Your task to perform on an android device: Show me productivity apps on the Play Store Image 0: 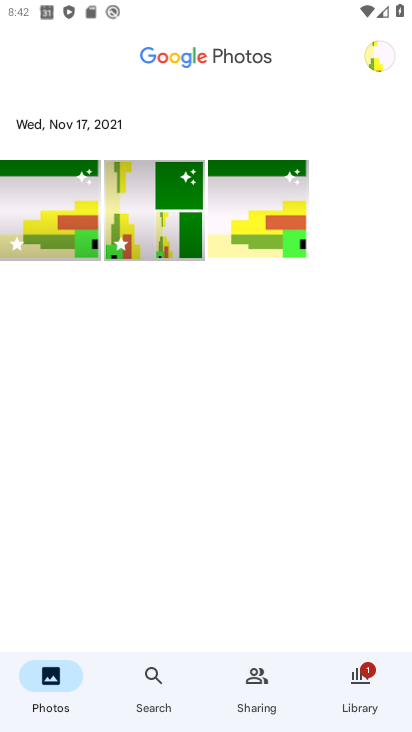
Step 0: drag from (182, 490) to (236, 220)
Your task to perform on an android device: Show me productivity apps on the Play Store Image 1: 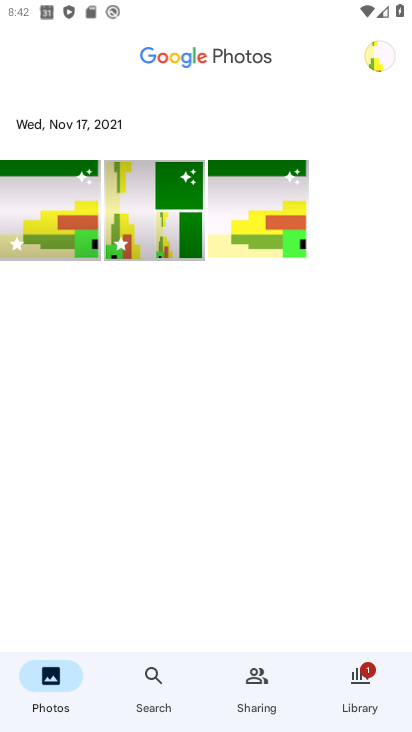
Step 1: press home button
Your task to perform on an android device: Show me productivity apps on the Play Store Image 2: 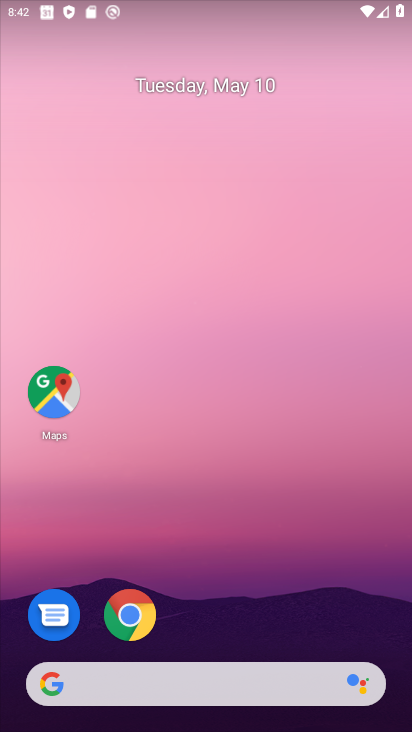
Step 2: drag from (196, 635) to (222, 165)
Your task to perform on an android device: Show me productivity apps on the Play Store Image 3: 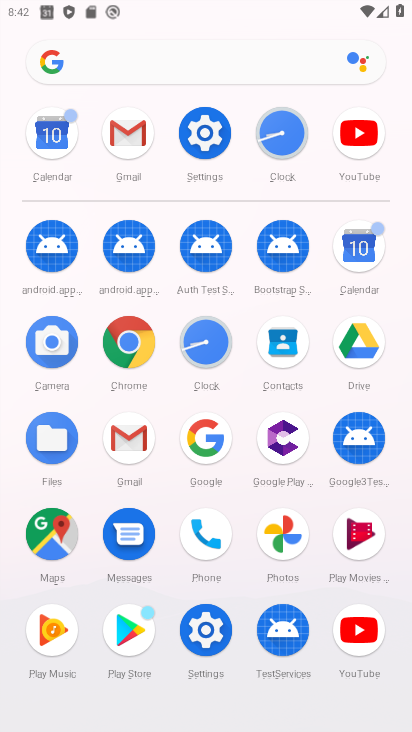
Step 3: click (127, 619)
Your task to perform on an android device: Show me productivity apps on the Play Store Image 4: 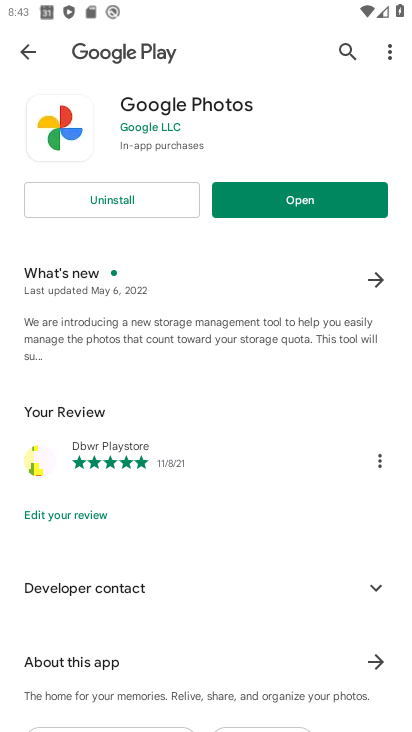
Step 4: click (21, 63)
Your task to perform on an android device: Show me productivity apps on the Play Store Image 5: 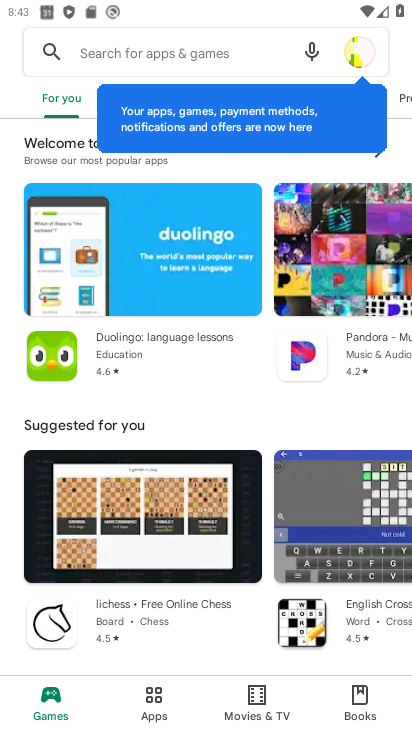
Step 5: click (346, 50)
Your task to perform on an android device: Show me productivity apps on the Play Store Image 6: 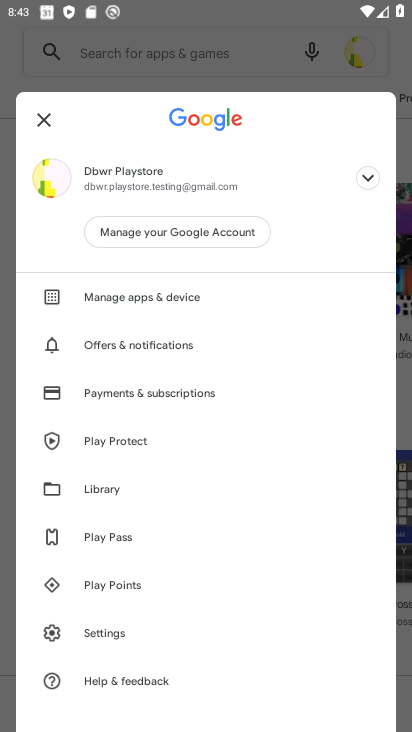
Step 6: click (162, 299)
Your task to perform on an android device: Show me productivity apps on the Play Store Image 7: 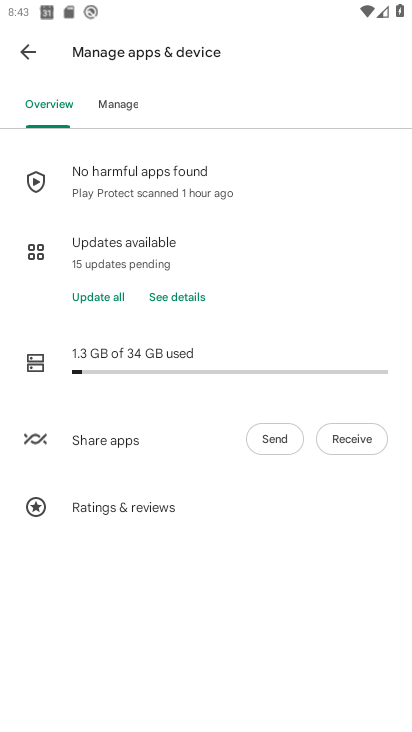
Step 7: click (29, 37)
Your task to perform on an android device: Show me productivity apps on the Play Store Image 8: 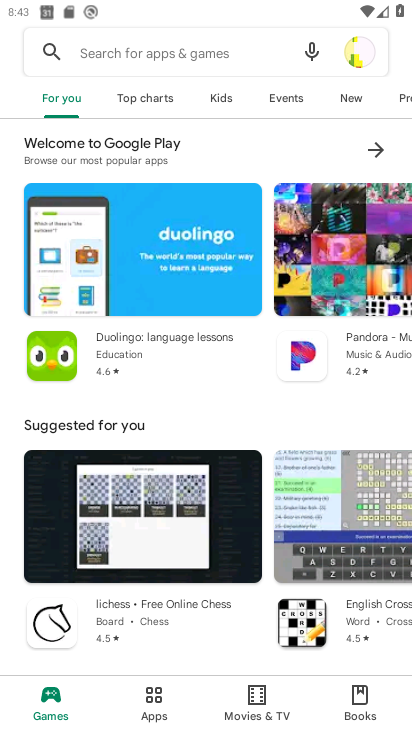
Step 8: task complete